Your task to perform on an android device: open app "Booking.com: Hotels and more" Image 0: 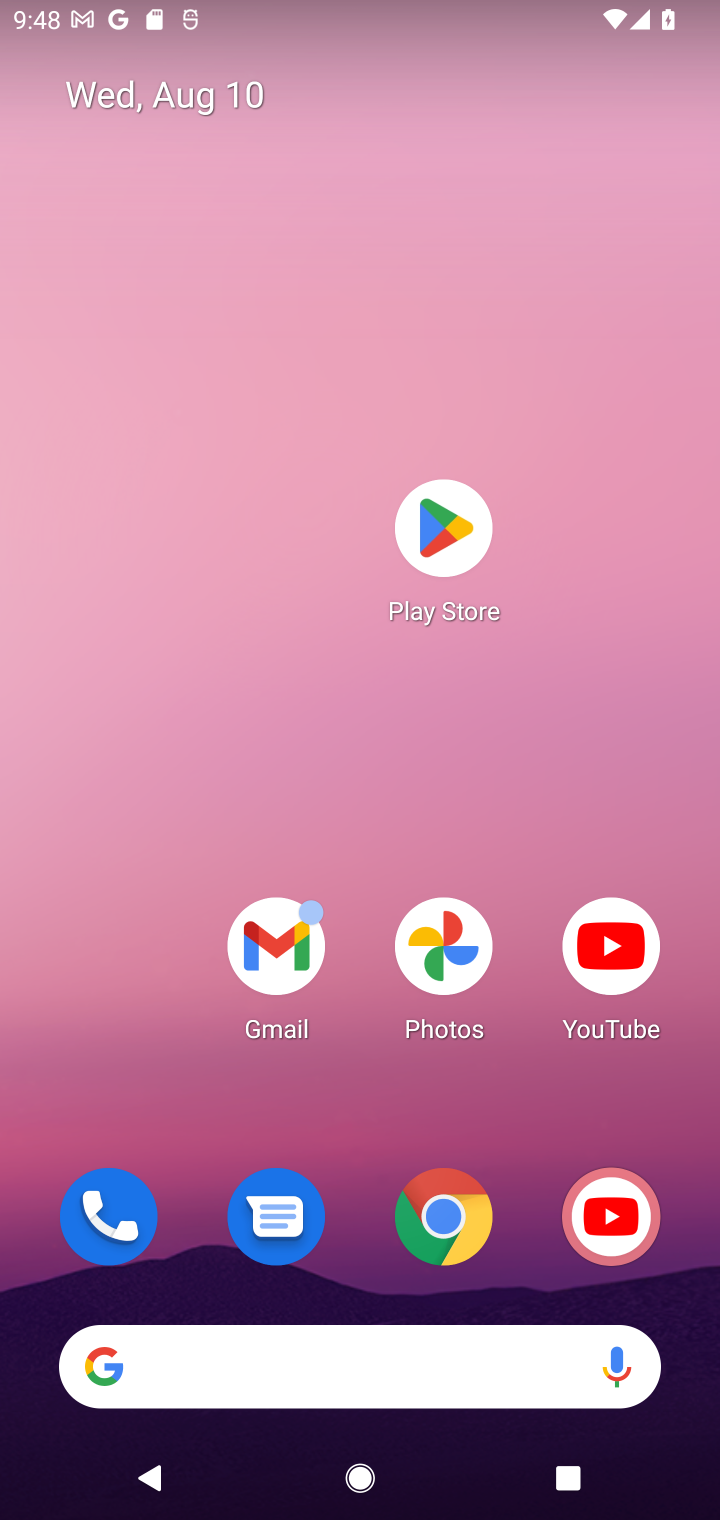
Step 0: press home button
Your task to perform on an android device: open app "Booking.com: Hotels and more" Image 1: 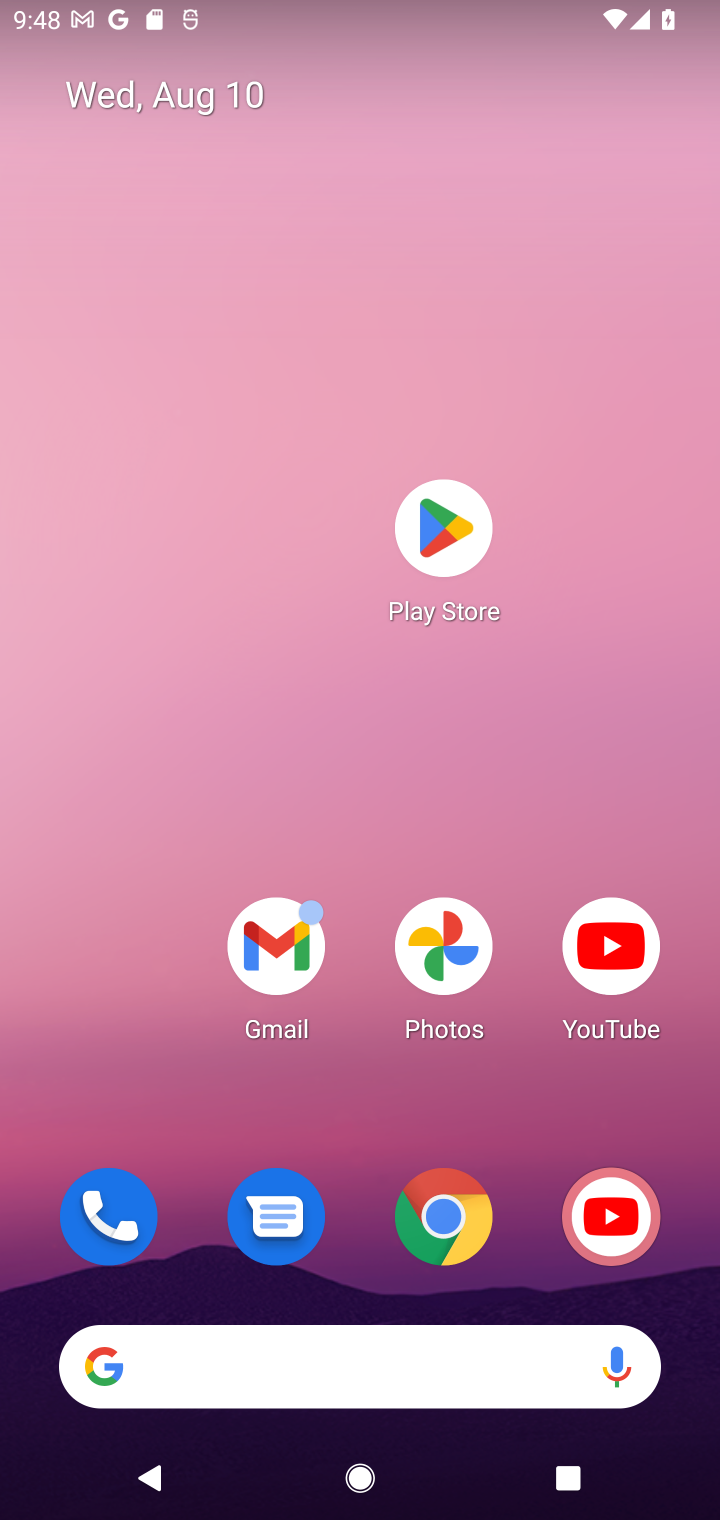
Step 1: click (442, 533)
Your task to perform on an android device: open app "Booking.com: Hotels and more" Image 2: 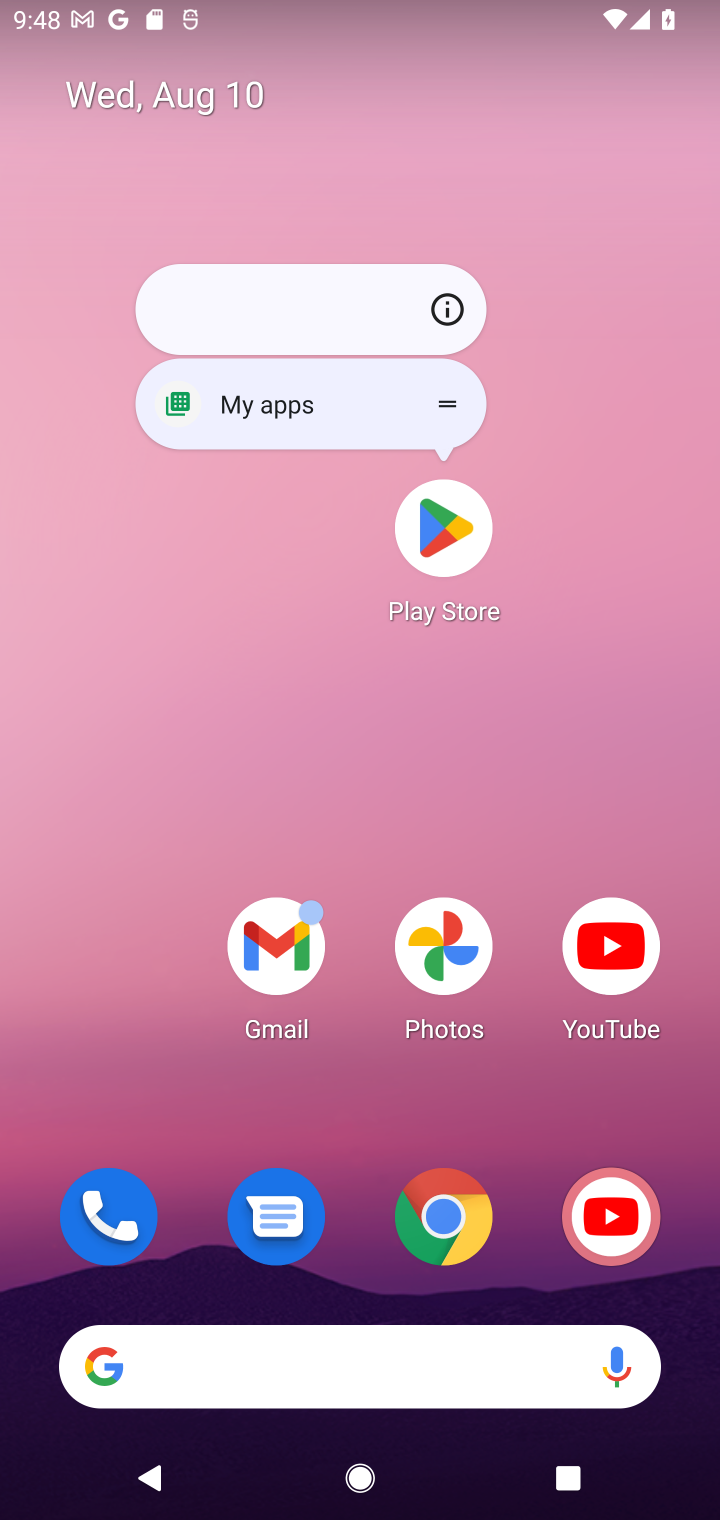
Step 2: click (443, 535)
Your task to perform on an android device: open app "Booking.com: Hotels and more" Image 3: 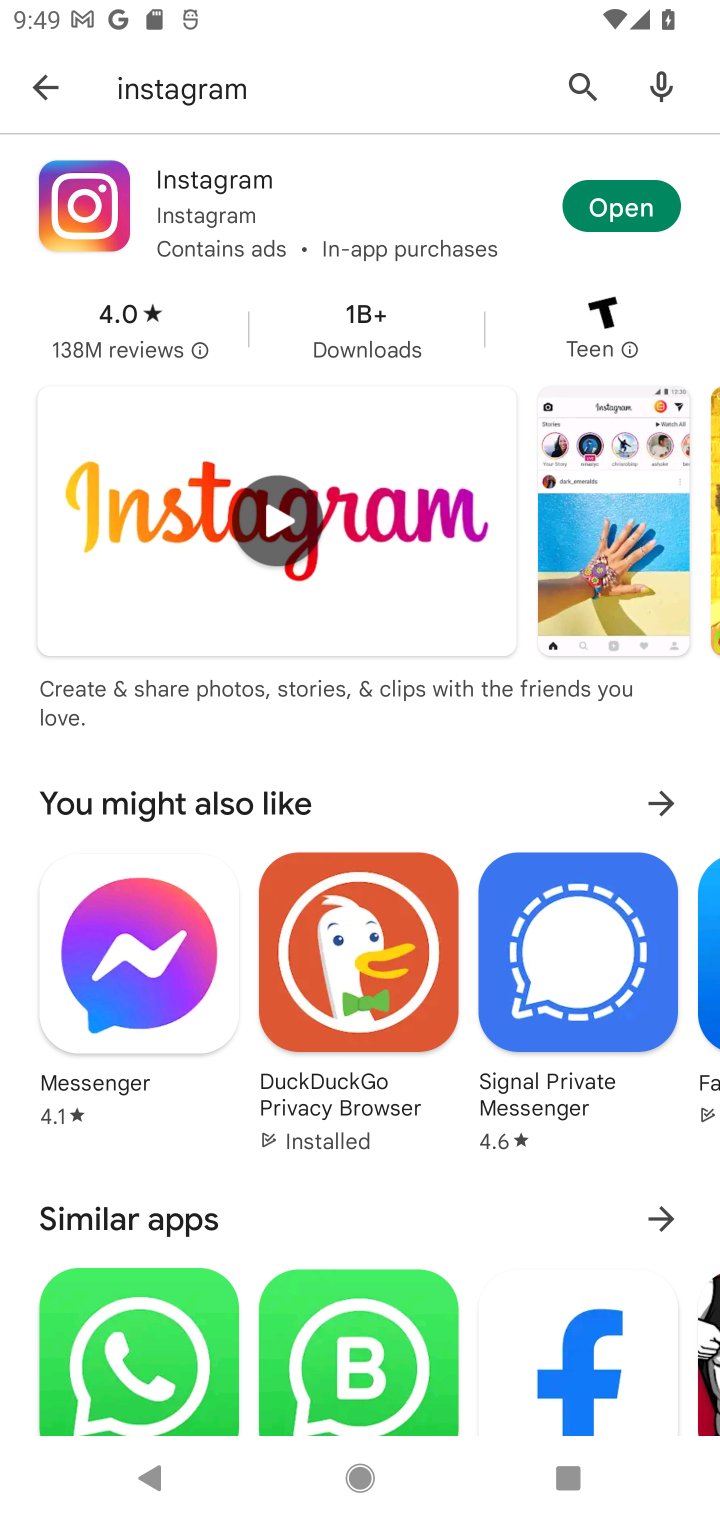
Step 3: click (576, 72)
Your task to perform on an android device: open app "Booking.com: Hotels and more" Image 4: 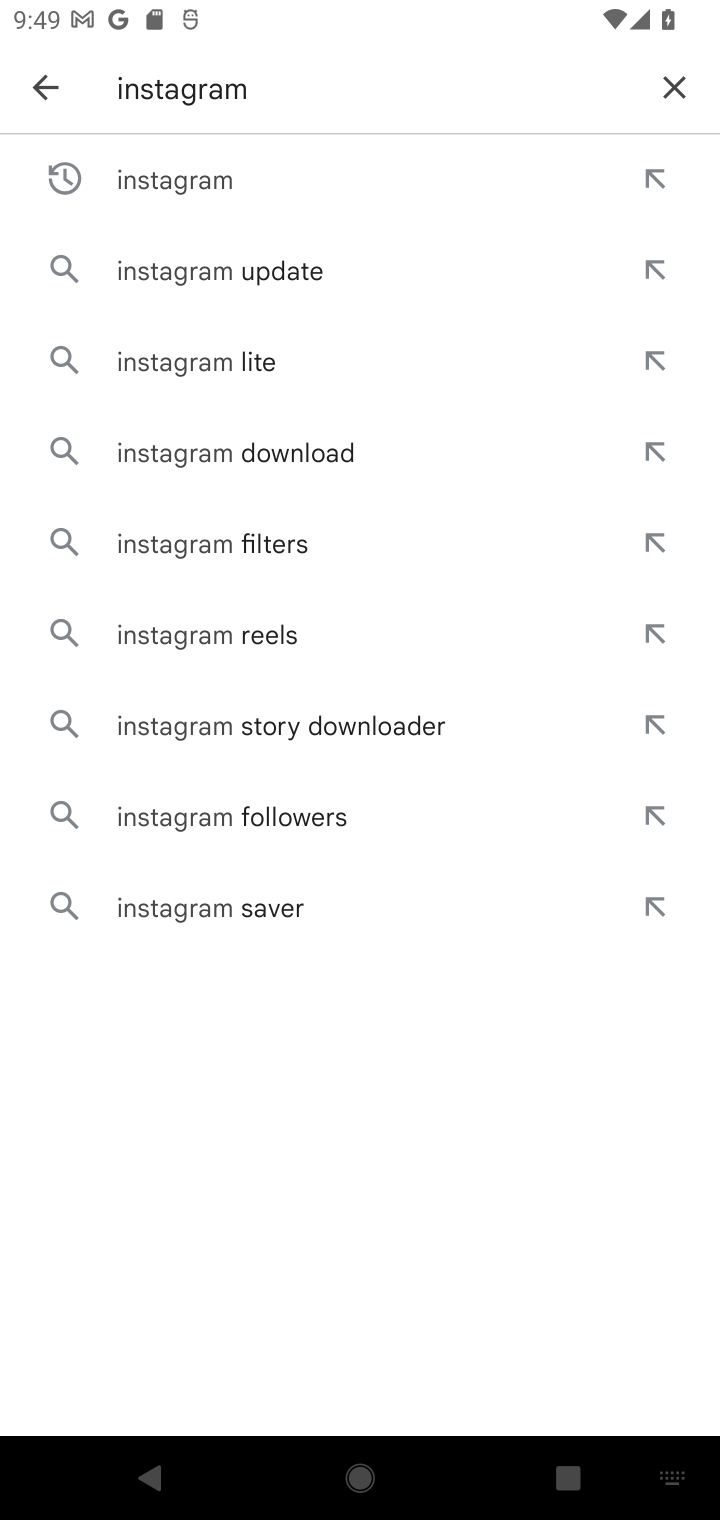
Step 4: click (662, 79)
Your task to perform on an android device: open app "Booking.com: Hotels and more" Image 5: 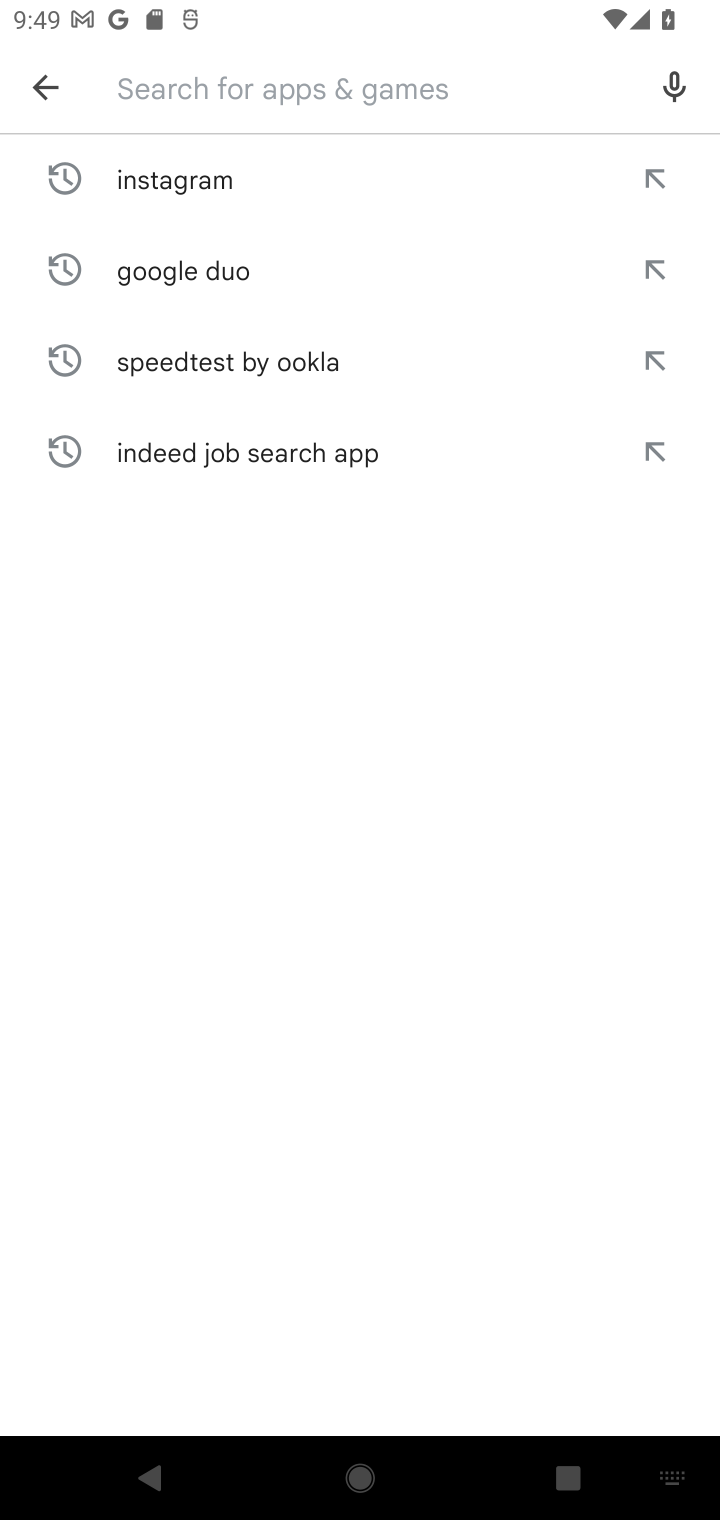
Step 5: type "Booking.com: Hotels and more"
Your task to perform on an android device: open app "Booking.com: Hotels and more" Image 6: 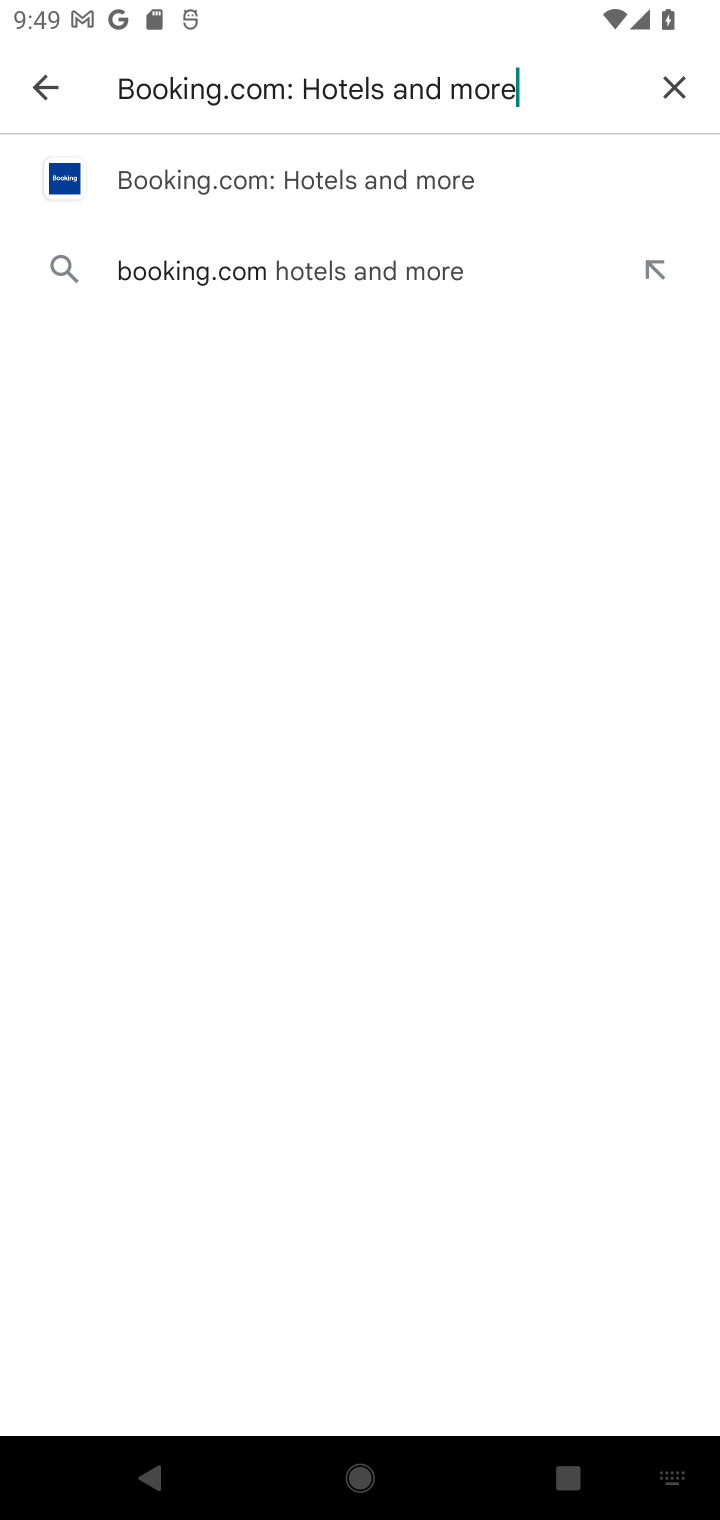
Step 6: click (237, 178)
Your task to perform on an android device: open app "Booking.com: Hotels and more" Image 7: 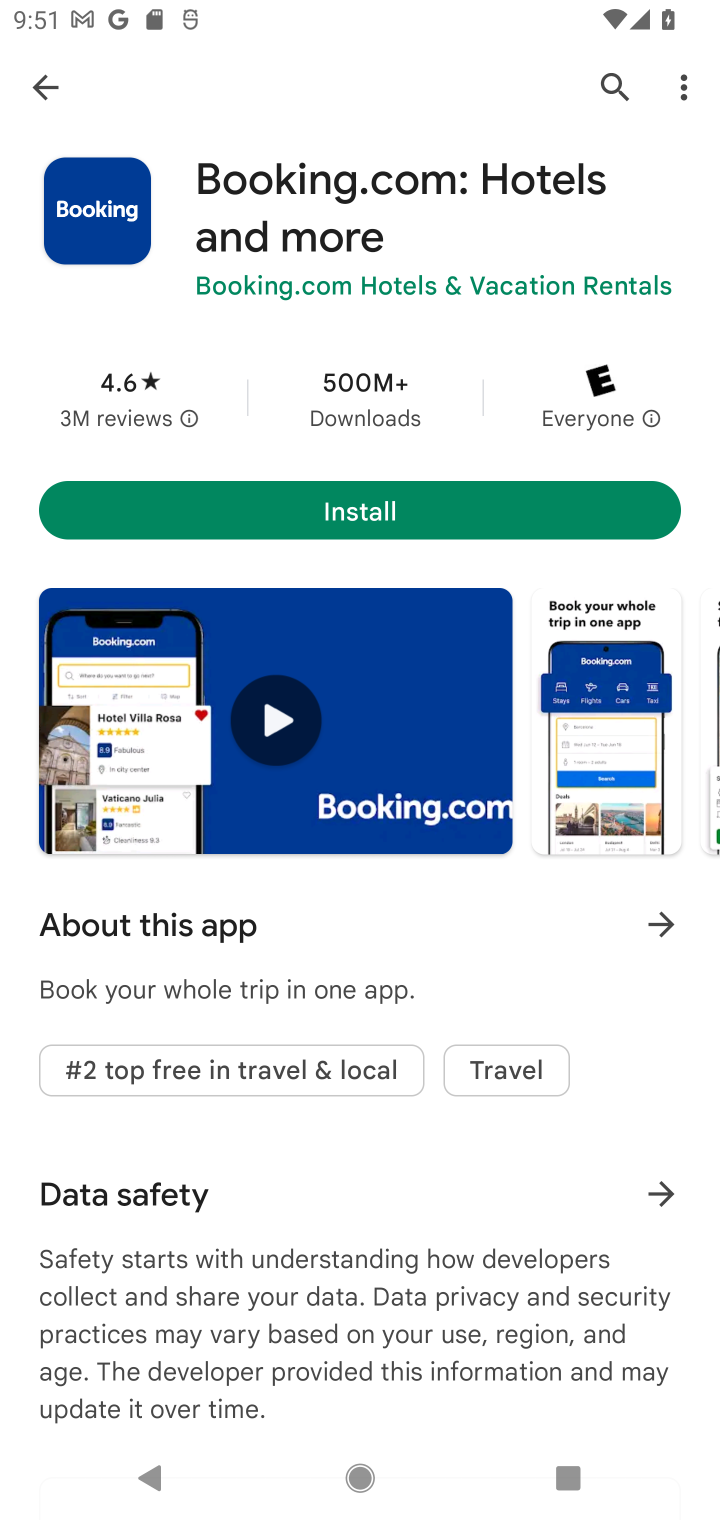
Step 7: task complete